Your task to perform on an android device: Search for dell alienware on costco.com, select the first entry, add it to the cart, then select checkout. Image 0: 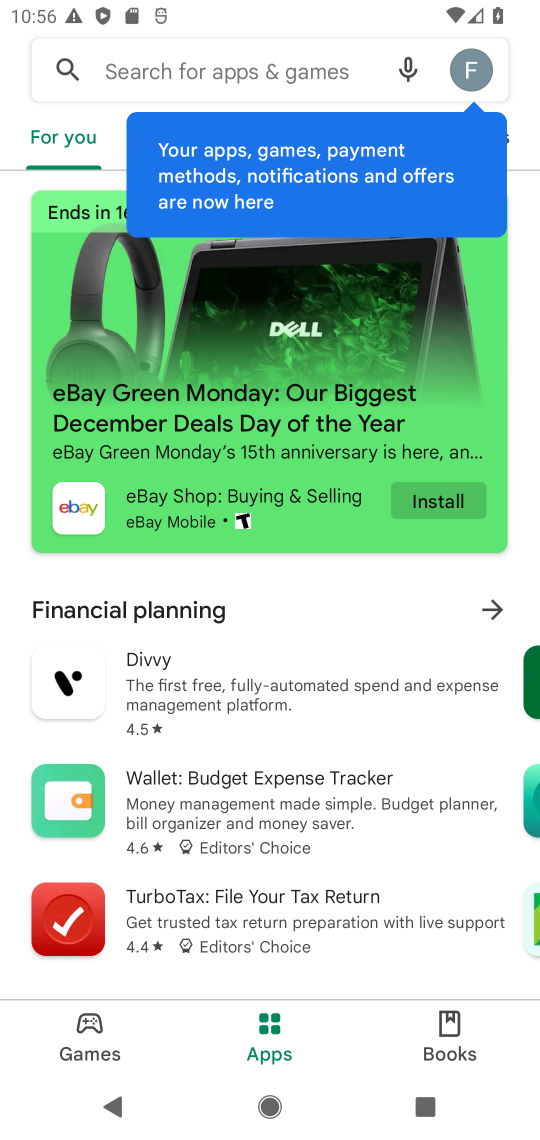
Step 0: press home button
Your task to perform on an android device: Search for dell alienware on costco.com, select the first entry, add it to the cart, then select checkout. Image 1: 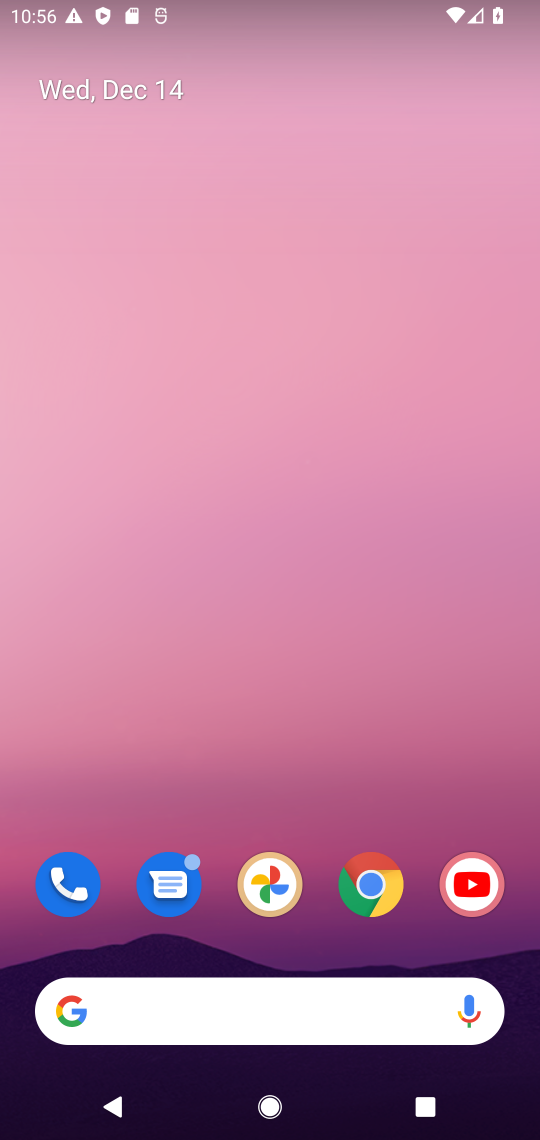
Step 1: click (379, 894)
Your task to perform on an android device: Search for dell alienware on costco.com, select the first entry, add it to the cart, then select checkout. Image 2: 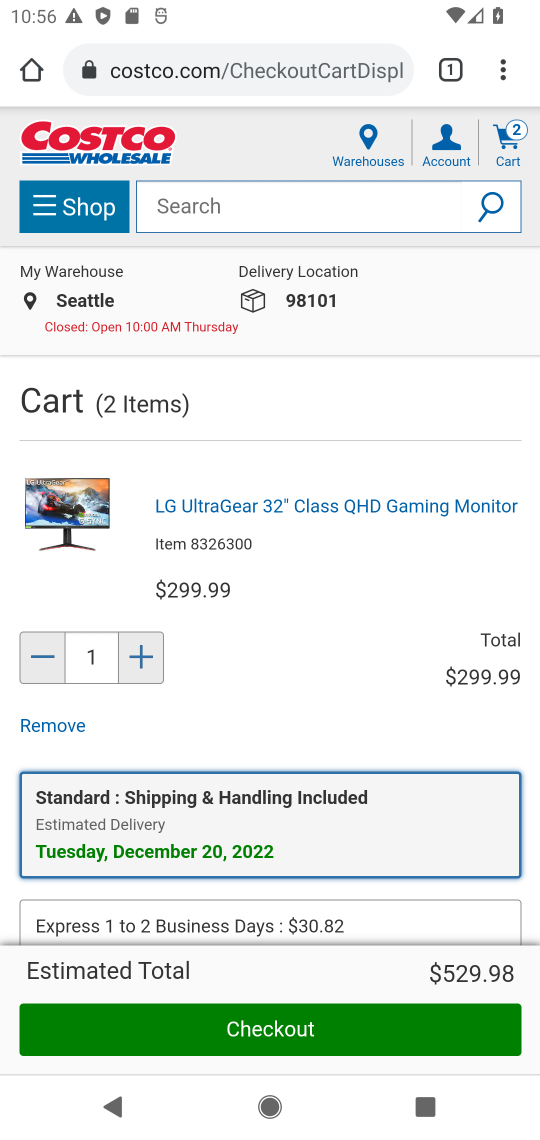
Step 2: click (231, 214)
Your task to perform on an android device: Search for dell alienware on costco.com, select the first entry, add it to the cart, then select checkout. Image 3: 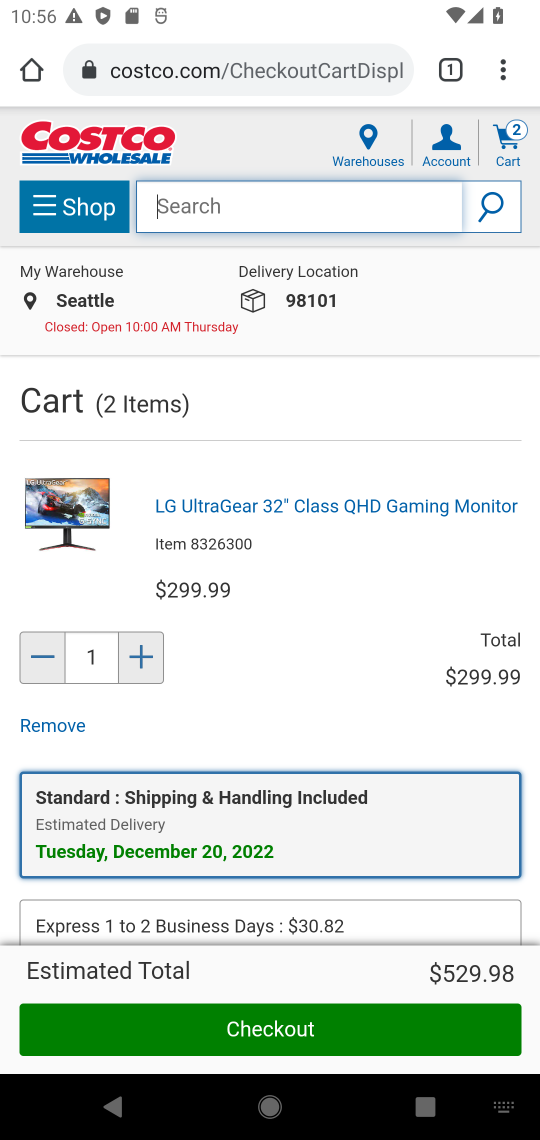
Step 3: type "dell alienware"
Your task to perform on an android device: Search for dell alienware on costco.com, select the first entry, add it to the cart, then select checkout. Image 4: 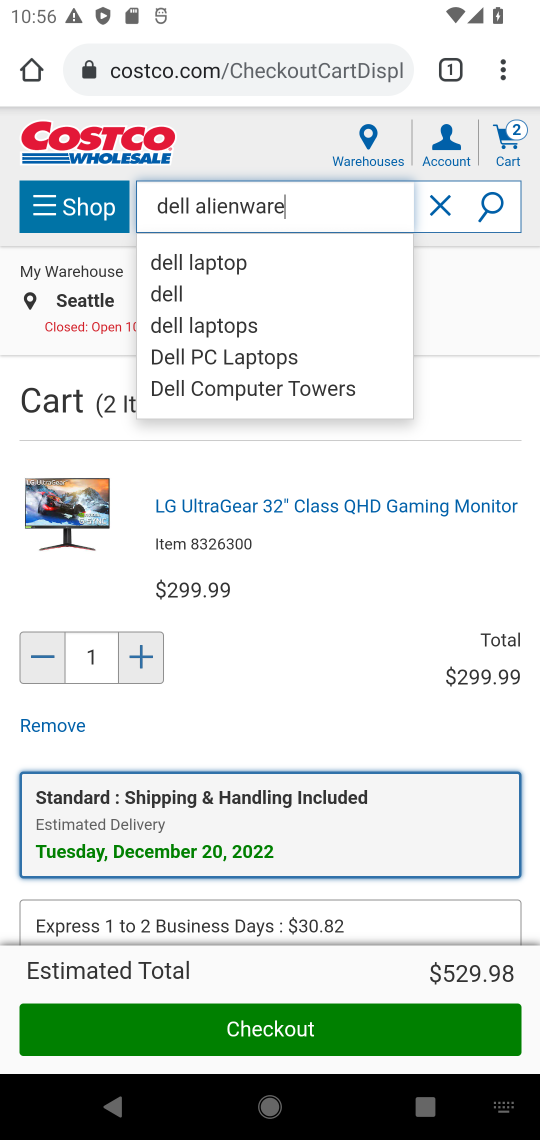
Step 4: press enter
Your task to perform on an android device: Search for dell alienware on costco.com, select the first entry, add it to the cart, then select checkout. Image 5: 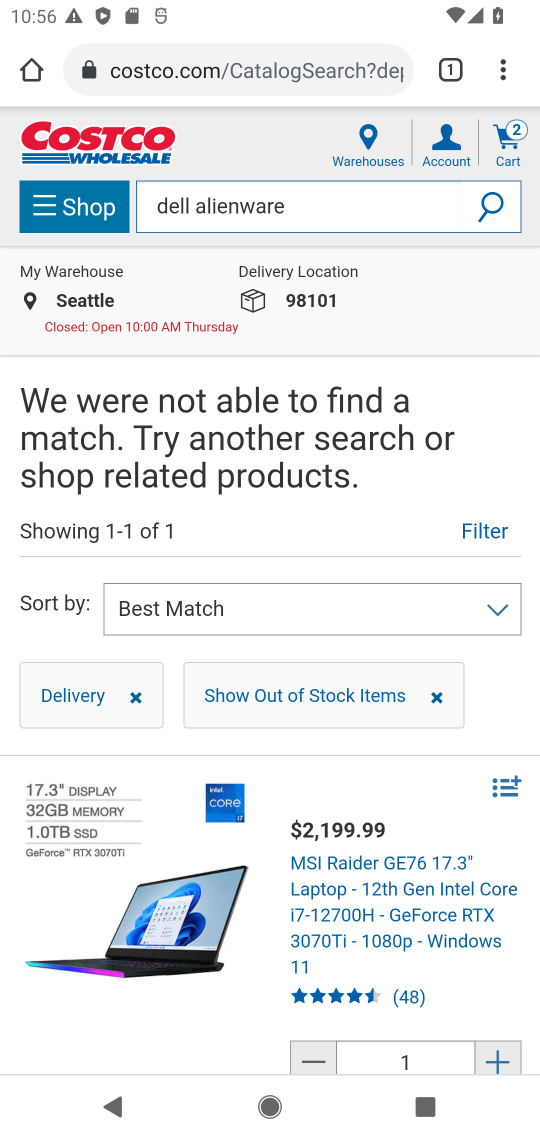
Step 5: task complete